Your task to perform on an android device: change keyboard looks Image 0: 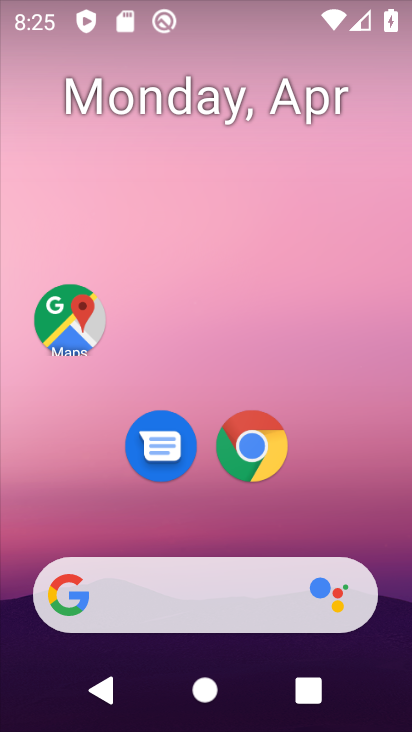
Step 0: drag from (314, 429) to (313, 54)
Your task to perform on an android device: change keyboard looks Image 1: 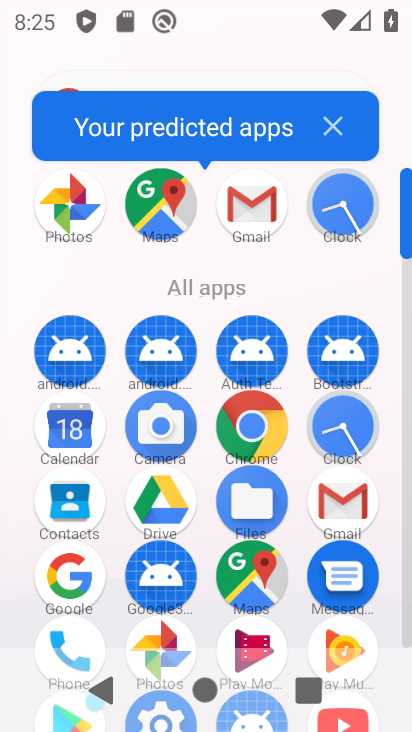
Step 1: drag from (201, 452) to (200, 47)
Your task to perform on an android device: change keyboard looks Image 2: 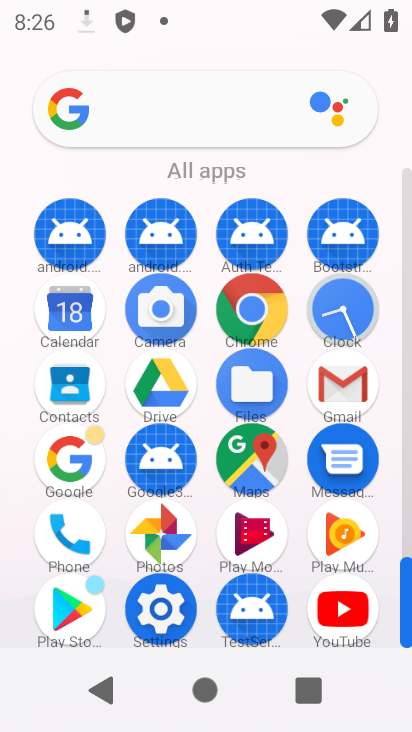
Step 2: click (165, 609)
Your task to perform on an android device: change keyboard looks Image 3: 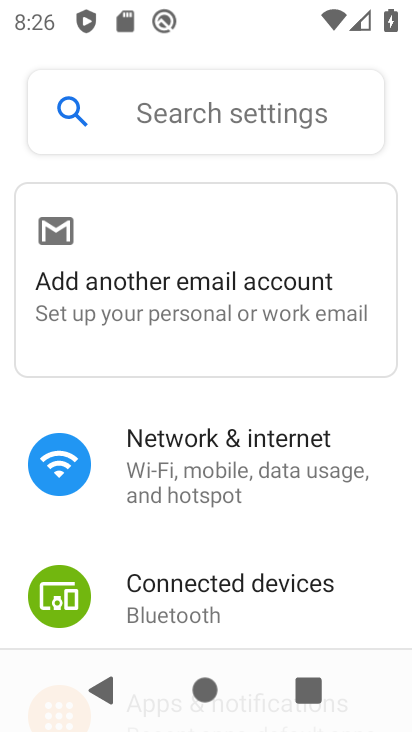
Step 3: drag from (369, 548) to (385, 358)
Your task to perform on an android device: change keyboard looks Image 4: 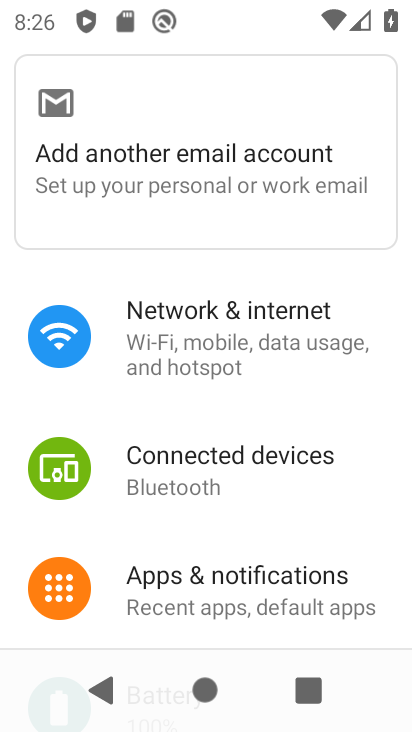
Step 4: drag from (387, 385) to (383, 111)
Your task to perform on an android device: change keyboard looks Image 5: 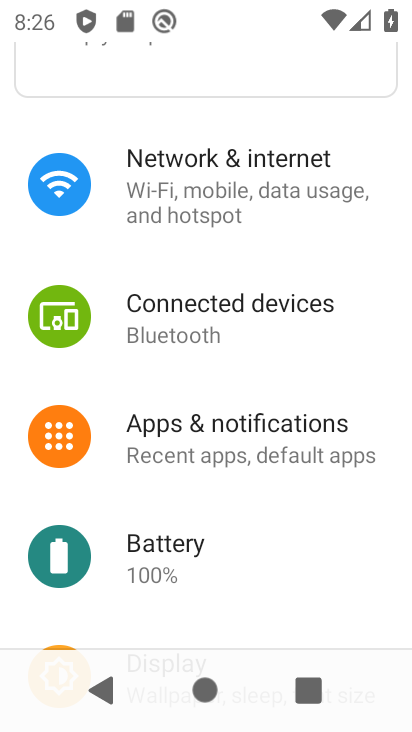
Step 5: drag from (358, 539) to (371, 222)
Your task to perform on an android device: change keyboard looks Image 6: 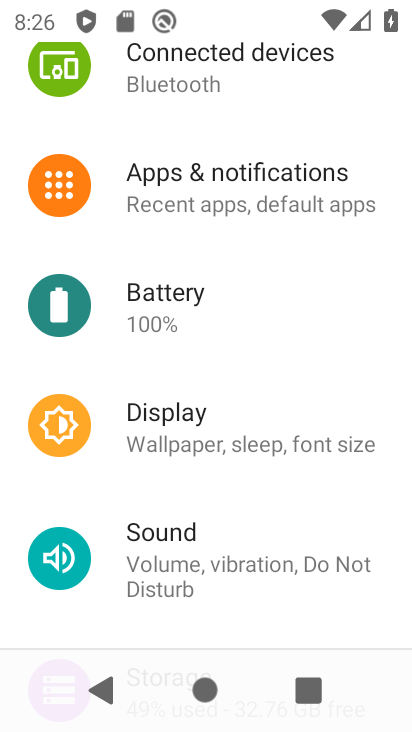
Step 6: drag from (380, 563) to (390, 230)
Your task to perform on an android device: change keyboard looks Image 7: 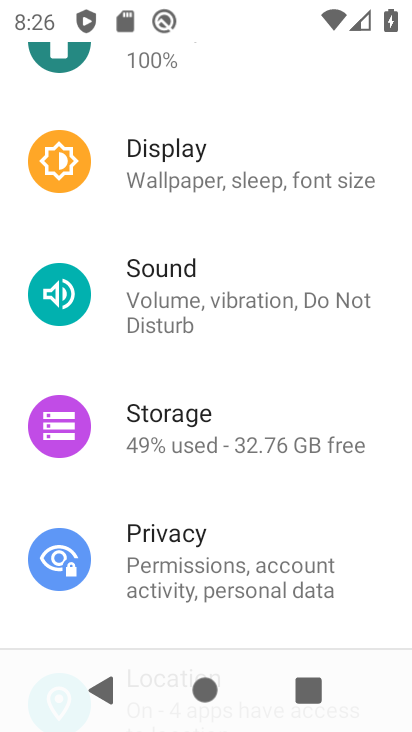
Step 7: drag from (367, 567) to (382, 234)
Your task to perform on an android device: change keyboard looks Image 8: 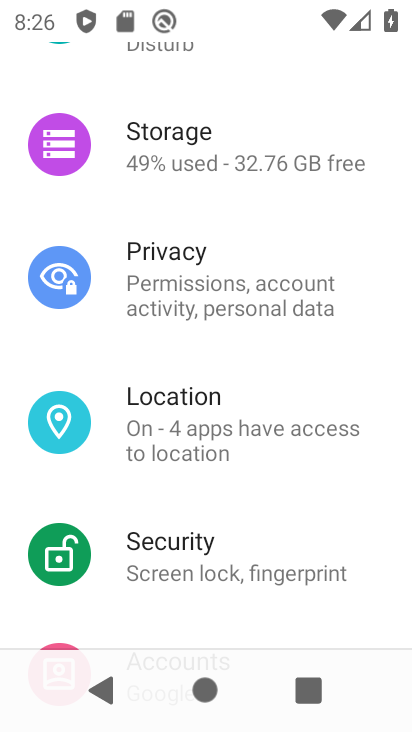
Step 8: drag from (388, 612) to (393, 233)
Your task to perform on an android device: change keyboard looks Image 9: 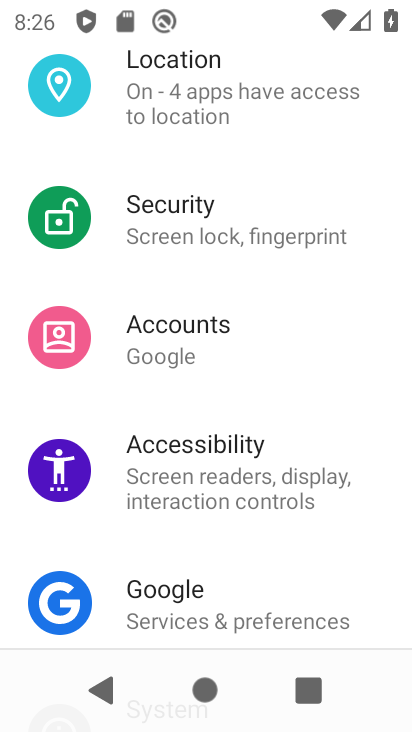
Step 9: drag from (378, 569) to (374, 221)
Your task to perform on an android device: change keyboard looks Image 10: 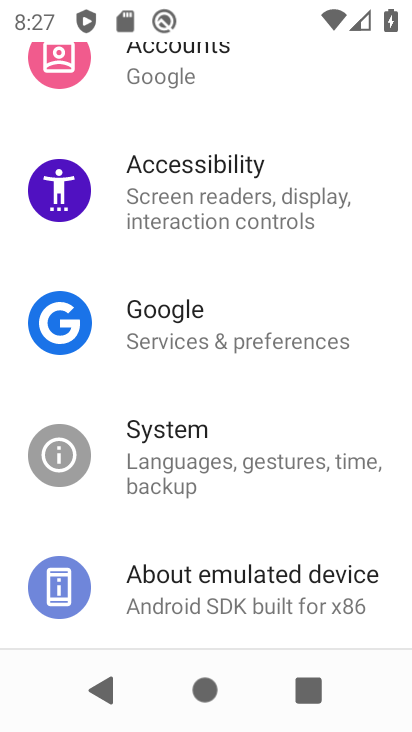
Step 10: click (283, 468)
Your task to perform on an android device: change keyboard looks Image 11: 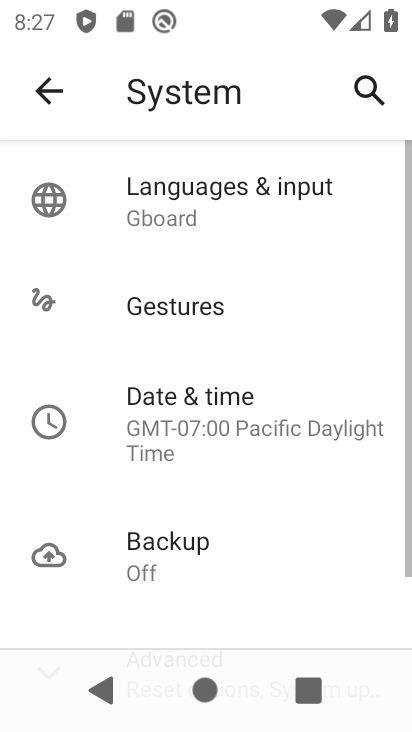
Step 11: click (205, 200)
Your task to perform on an android device: change keyboard looks Image 12: 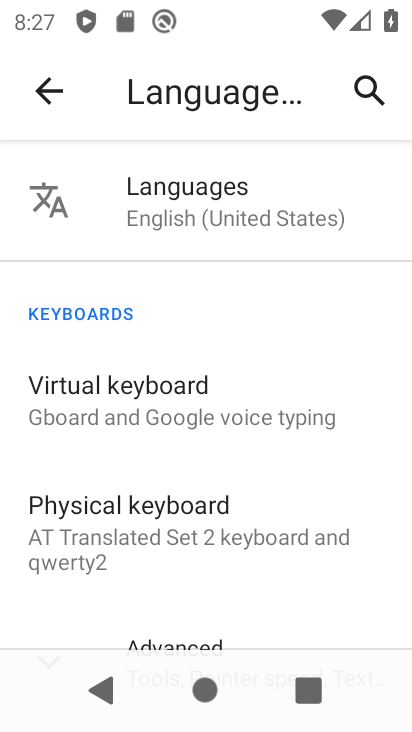
Step 12: click (191, 414)
Your task to perform on an android device: change keyboard looks Image 13: 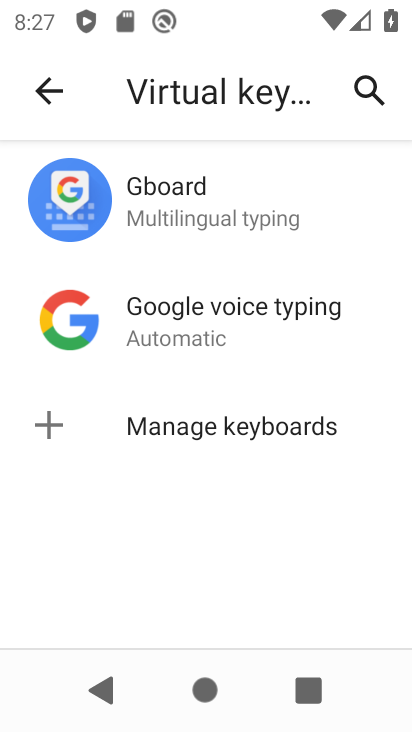
Step 13: click (194, 211)
Your task to perform on an android device: change keyboard looks Image 14: 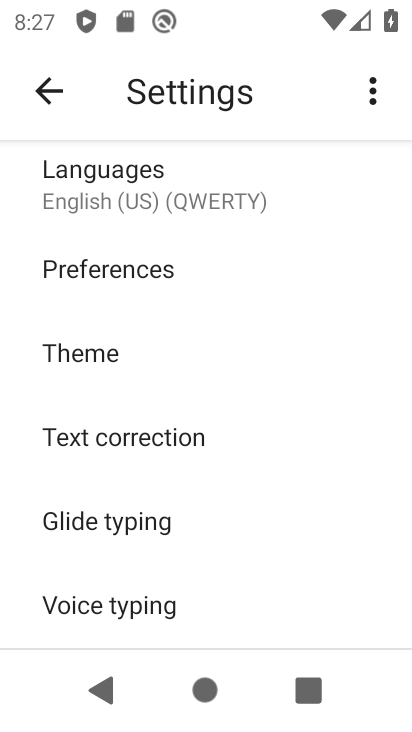
Step 14: click (109, 360)
Your task to perform on an android device: change keyboard looks Image 15: 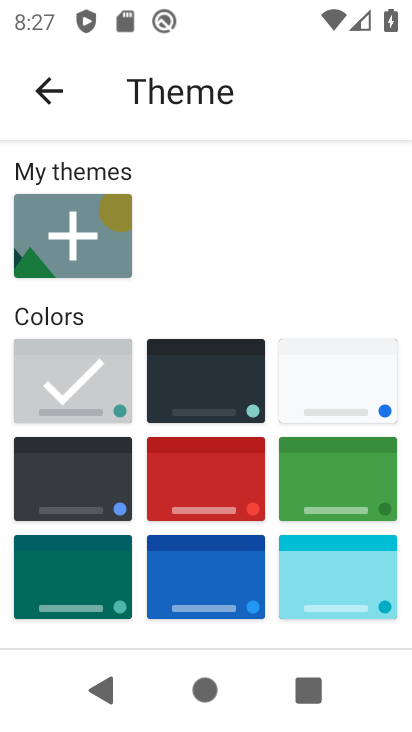
Step 15: click (199, 482)
Your task to perform on an android device: change keyboard looks Image 16: 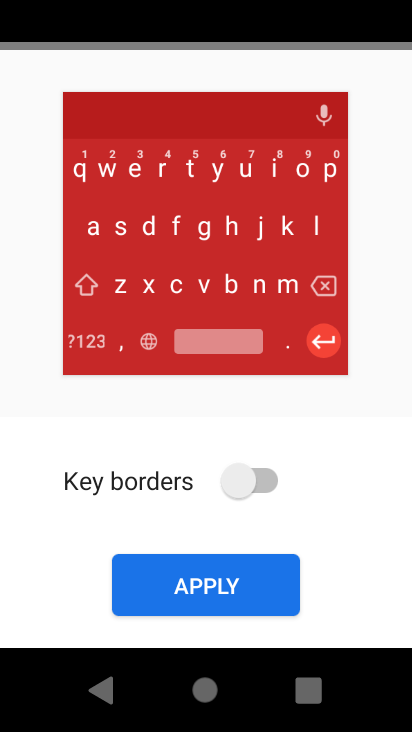
Step 16: click (228, 596)
Your task to perform on an android device: change keyboard looks Image 17: 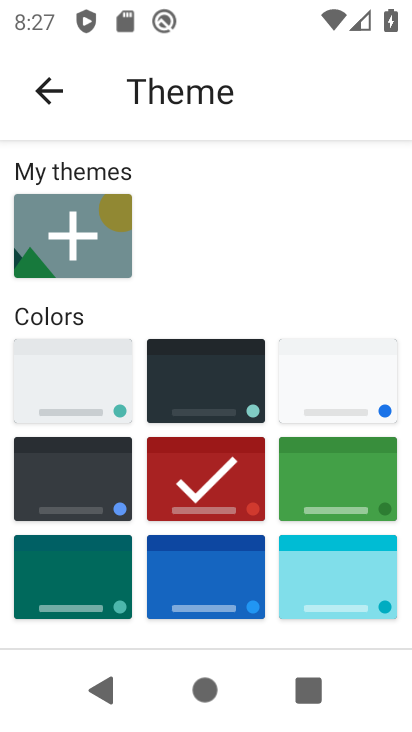
Step 17: task complete